Your task to perform on an android device: turn on showing notifications on the lock screen Image 0: 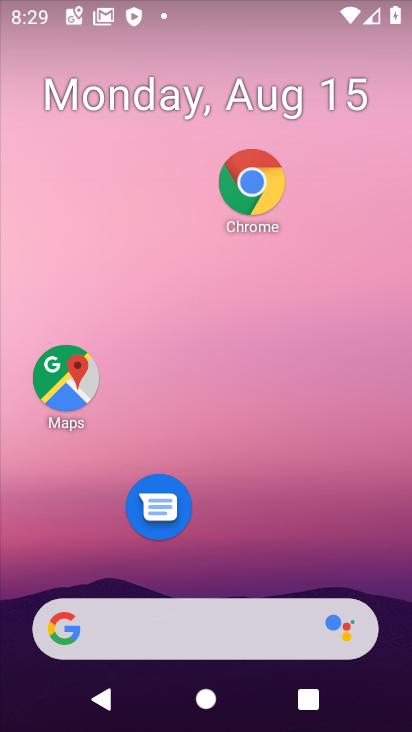
Step 0: drag from (282, 591) to (324, 160)
Your task to perform on an android device: turn on showing notifications on the lock screen Image 1: 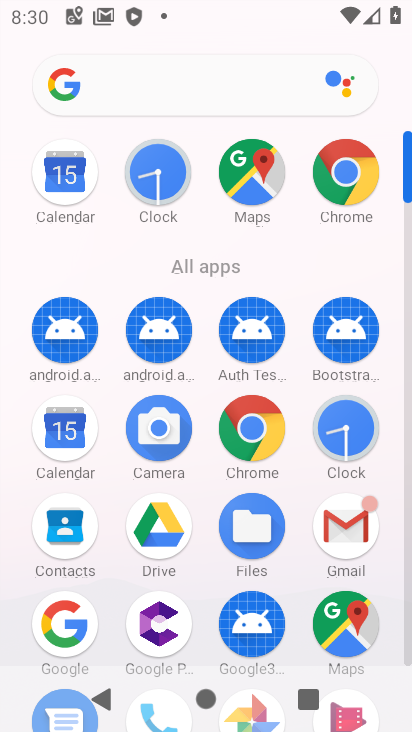
Step 1: click (407, 472)
Your task to perform on an android device: turn on showing notifications on the lock screen Image 2: 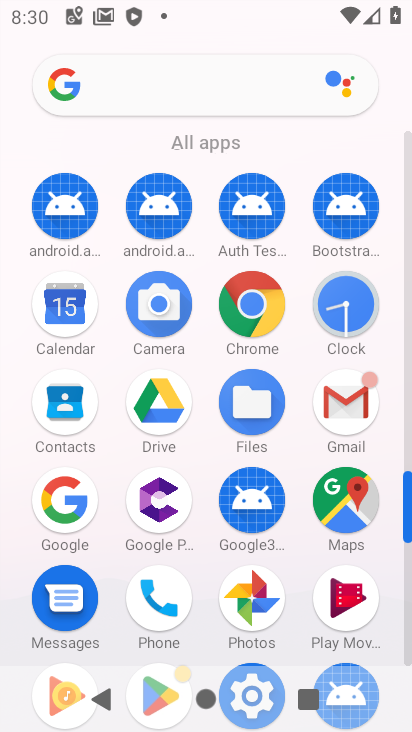
Step 2: click (251, 667)
Your task to perform on an android device: turn on showing notifications on the lock screen Image 3: 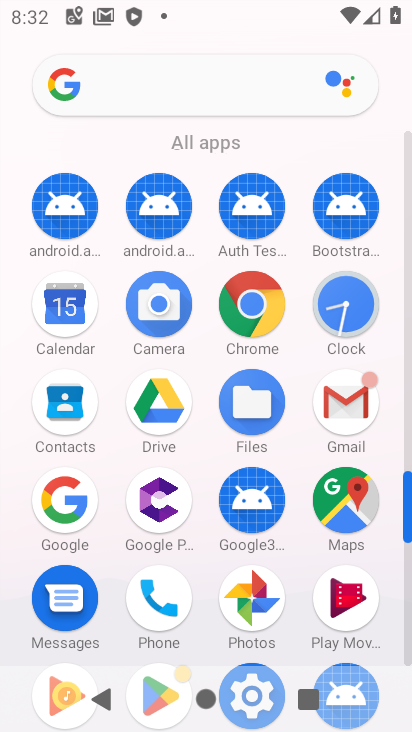
Step 3: click (245, 667)
Your task to perform on an android device: turn on showing notifications on the lock screen Image 4: 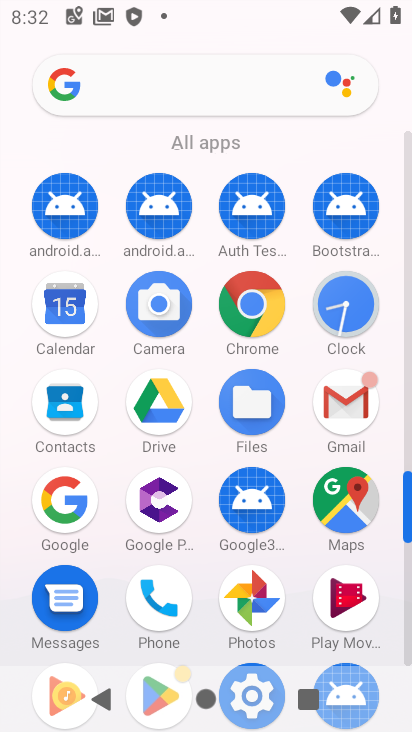
Step 4: click (409, 634)
Your task to perform on an android device: turn on showing notifications on the lock screen Image 5: 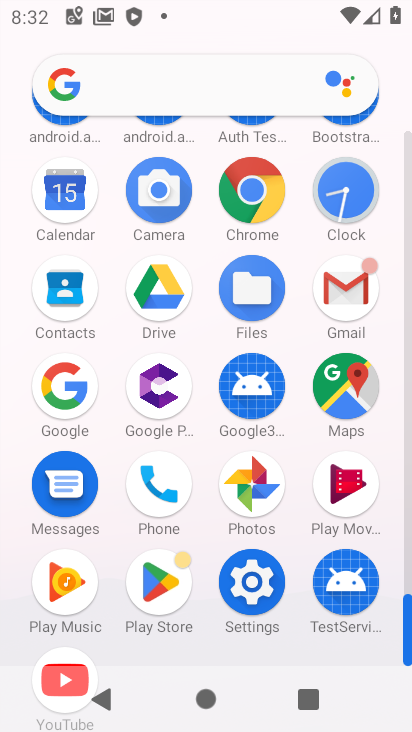
Step 5: click (252, 581)
Your task to perform on an android device: turn on showing notifications on the lock screen Image 6: 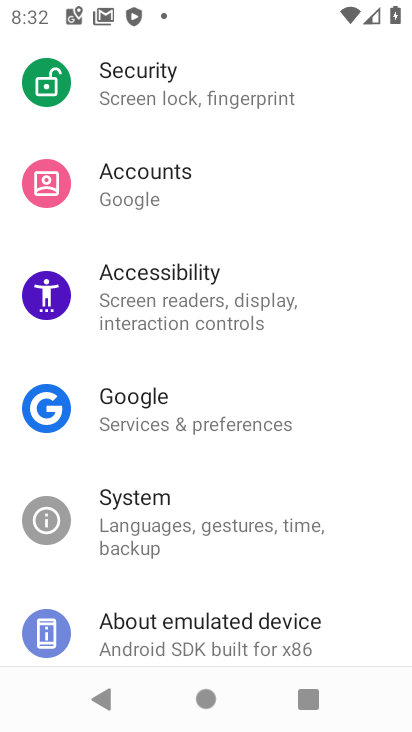
Step 6: task complete